Your task to perform on an android device: Search for seafood restaurants on Google Maps Image 0: 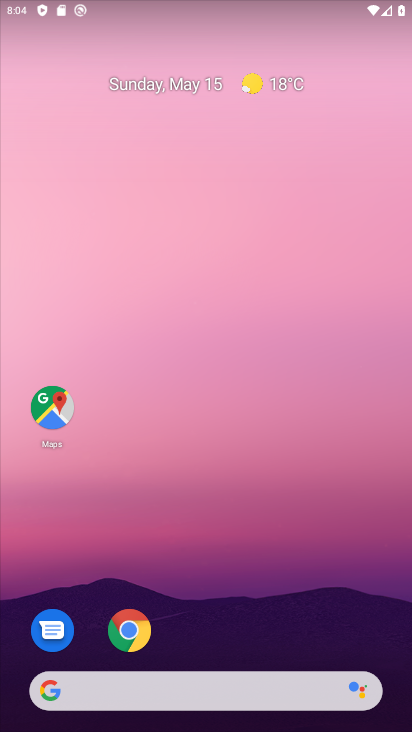
Step 0: drag from (201, 666) to (319, 224)
Your task to perform on an android device: Search for seafood restaurants on Google Maps Image 1: 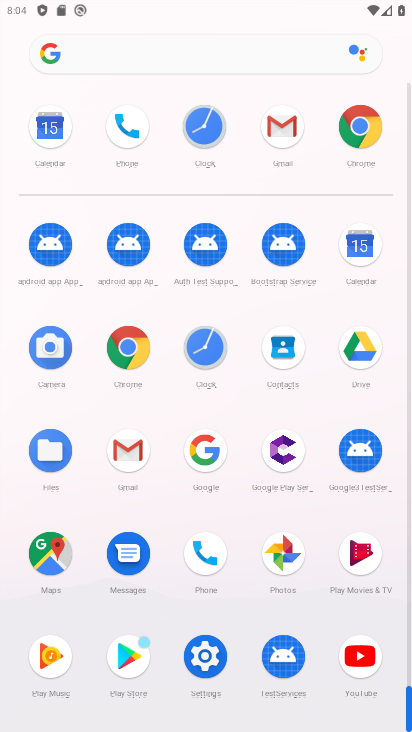
Step 1: click (41, 550)
Your task to perform on an android device: Search for seafood restaurants on Google Maps Image 2: 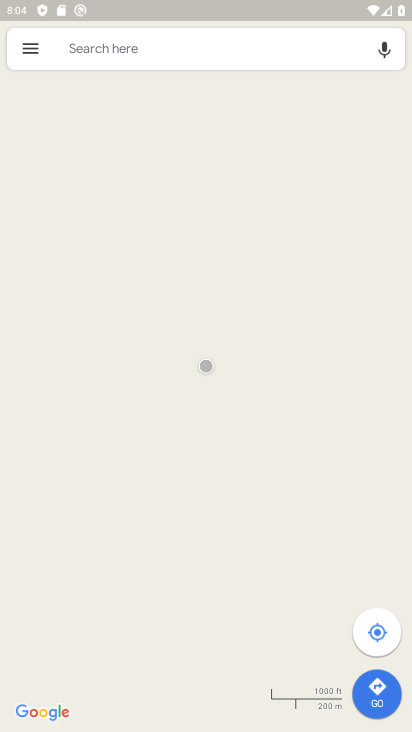
Step 2: click (239, 34)
Your task to perform on an android device: Search for seafood restaurants on Google Maps Image 3: 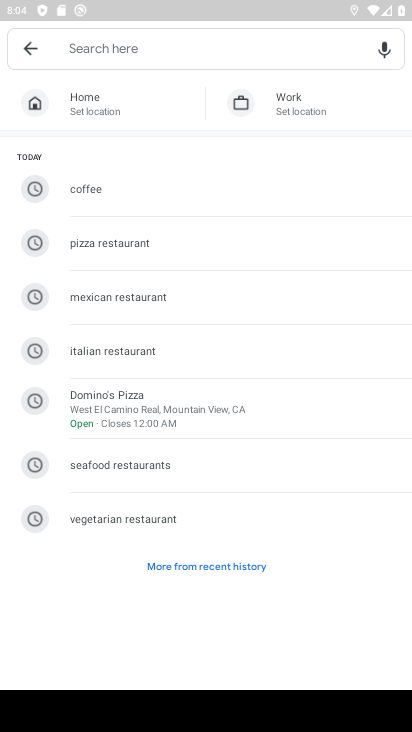
Step 3: type "seafood"
Your task to perform on an android device: Search for seafood restaurants on Google Maps Image 4: 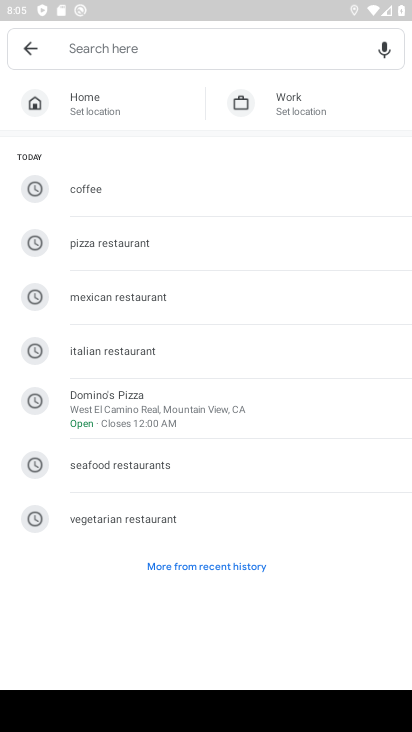
Step 4: click (112, 469)
Your task to perform on an android device: Search for seafood restaurants on Google Maps Image 5: 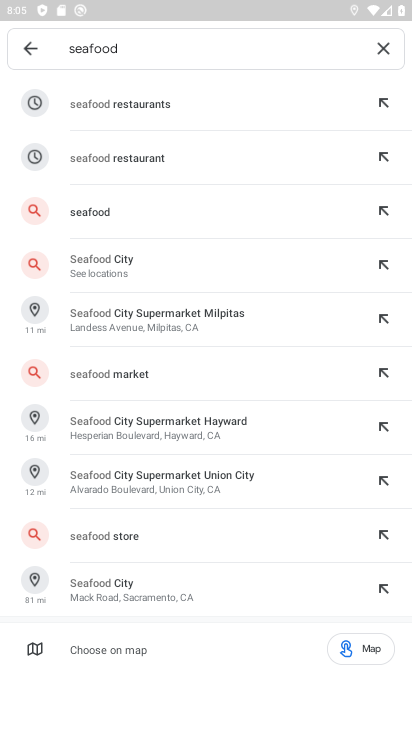
Step 5: click (119, 102)
Your task to perform on an android device: Search for seafood restaurants on Google Maps Image 6: 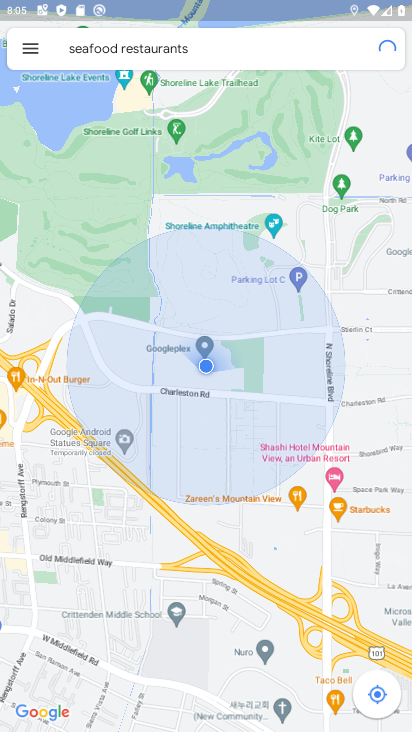
Step 6: task complete